Your task to perform on an android device: Show me the alarms in the clock app Image 0: 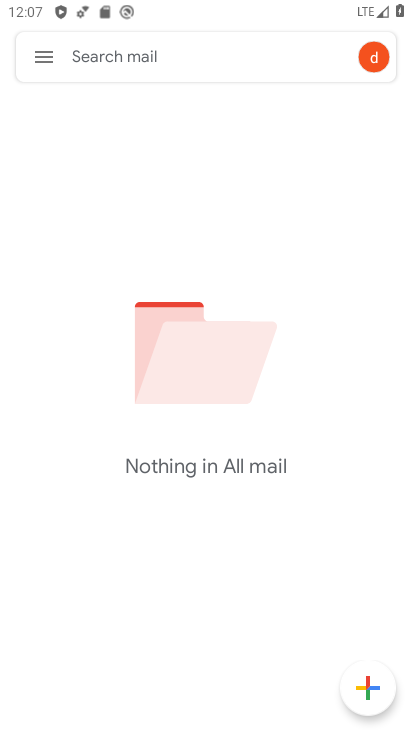
Step 0: press home button
Your task to perform on an android device: Show me the alarms in the clock app Image 1: 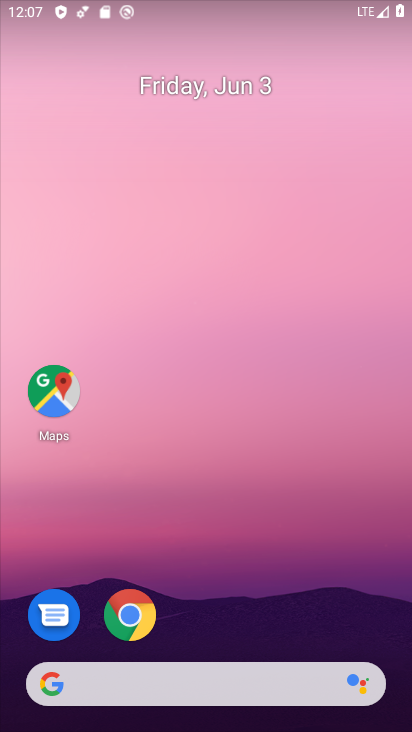
Step 1: drag from (291, 488) to (194, 12)
Your task to perform on an android device: Show me the alarms in the clock app Image 2: 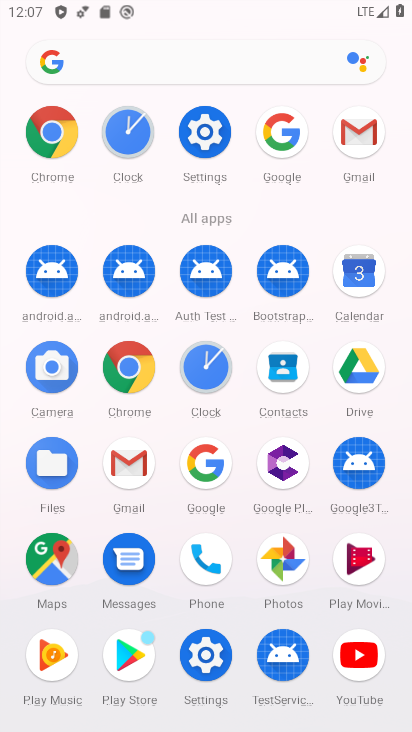
Step 2: click (124, 131)
Your task to perform on an android device: Show me the alarms in the clock app Image 3: 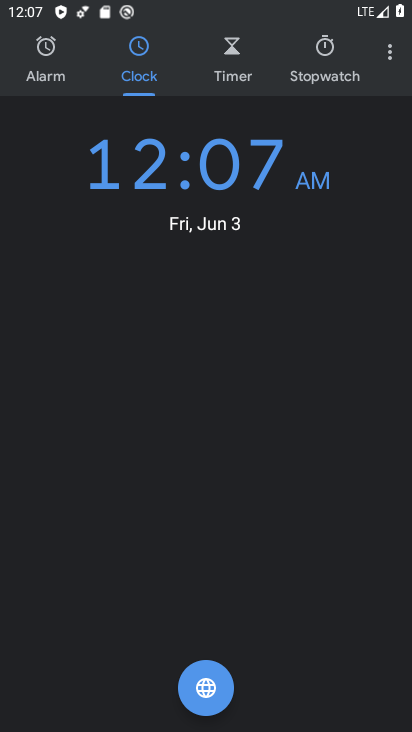
Step 3: click (53, 61)
Your task to perform on an android device: Show me the alarms in the clock app Image 4: 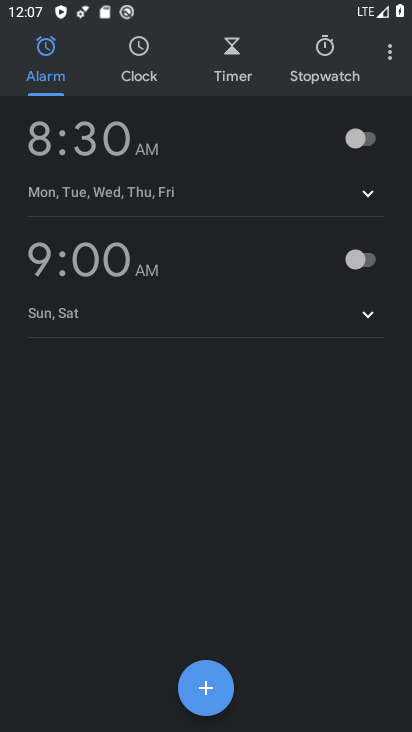
Step 4: task complete